Your task to perform on an android device: Open Google Image 0: 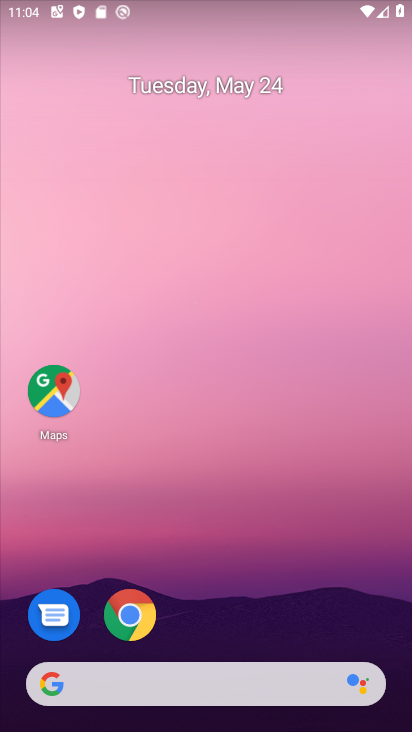
Step 0: click (135, 669)
Your task to perform on an android device: Open Google Image 1: 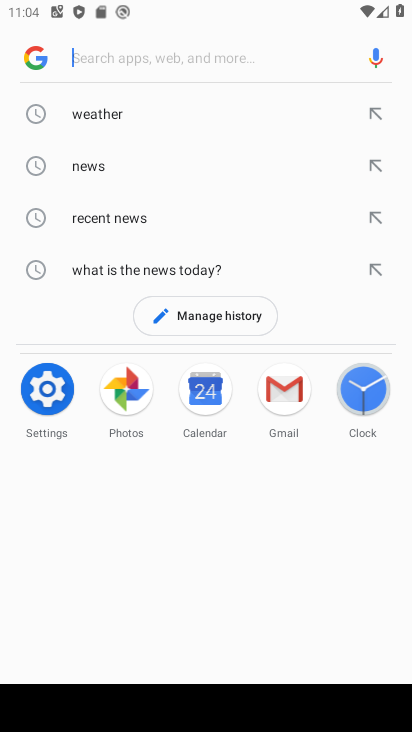
Step 1: task complete